Your task to perform on an android device: open app "YouTube Kids" (install if not already installed) and enter user name: "atmospheric@gmail.com" and password: "raze" Image 0: 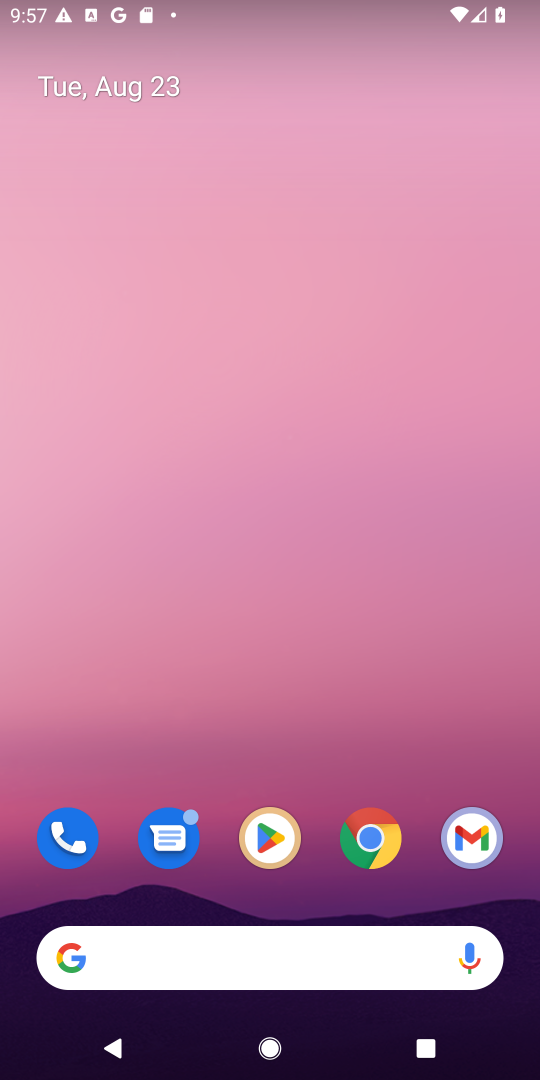
Step 0: click (289, 850)
Your task to perform on an android device: open app "YouTube Kids" (install if not already installed) and enter user name: "atmospheric@gmail.com" and password: "raze" Image 1: 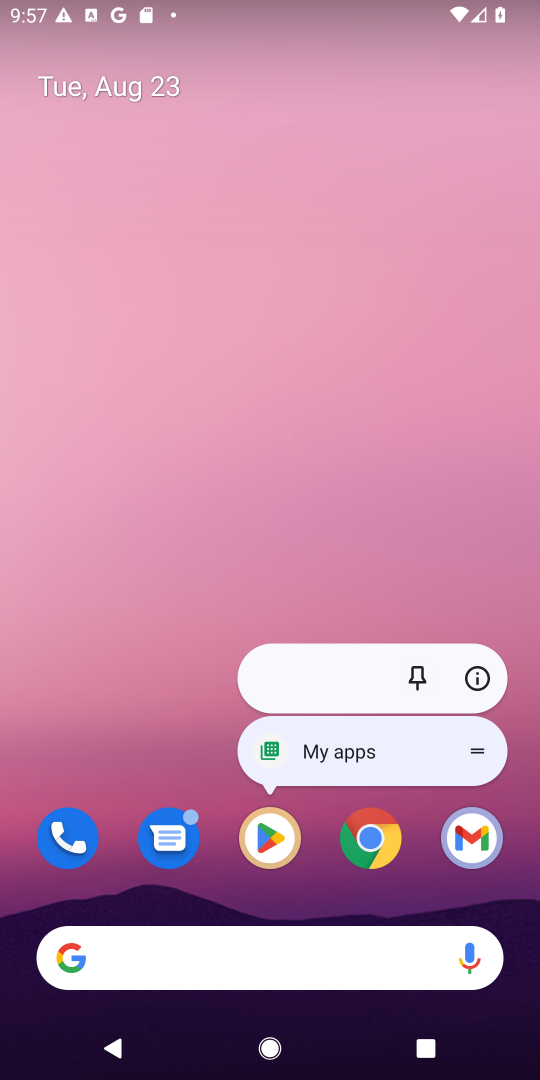
Step 1: click (289, 850)
Your task to perform on an android device: open app "YouTube Kids" (install if not already installed) and enter user name: "atmospheric@gmail.com" and password: "raze" Image 2: 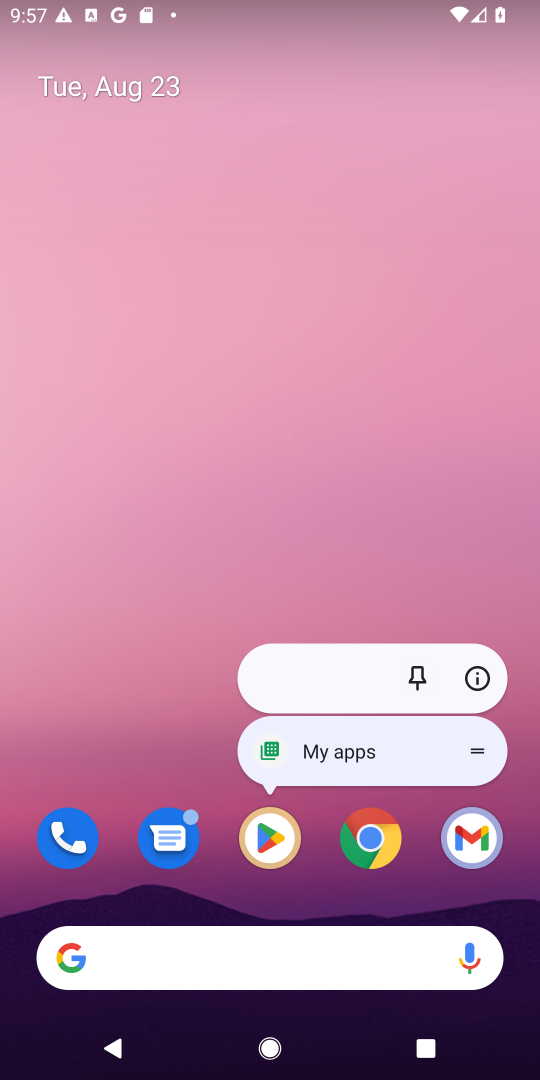
Step 2: click (267, 825)
Your task to perform on an android device: open app "YouTube Kids" (install if not already installed) and enter user name: "atmospheric@gmail.com" and password: "raze" Image 3: 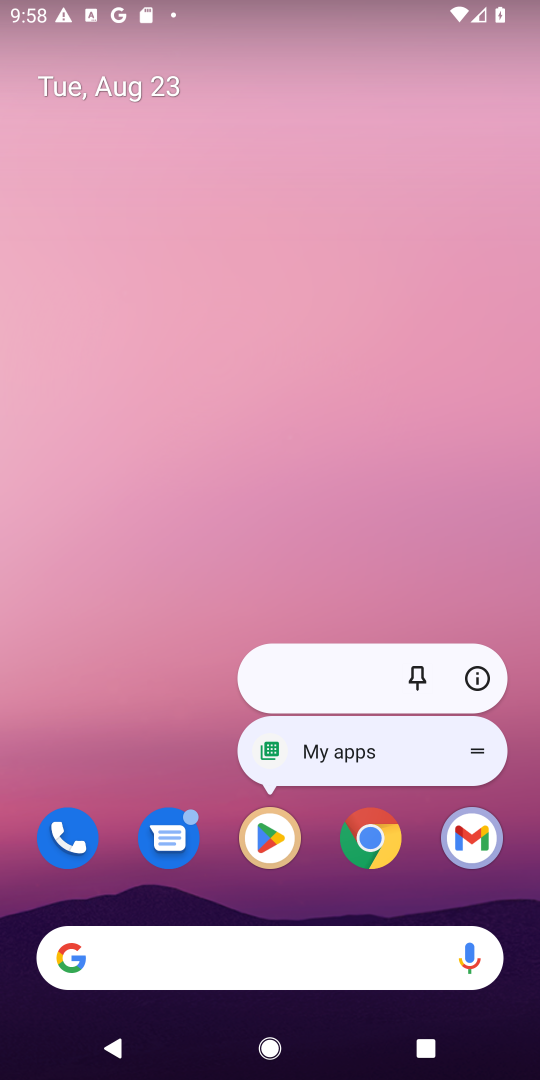
Step 3: click (277, 837)
Your task to perform on an android device: open app "YouTube Kids" (install if not already installed) and enter user name: "atmospheric@gmail.com" and password: "raze" Image 4: 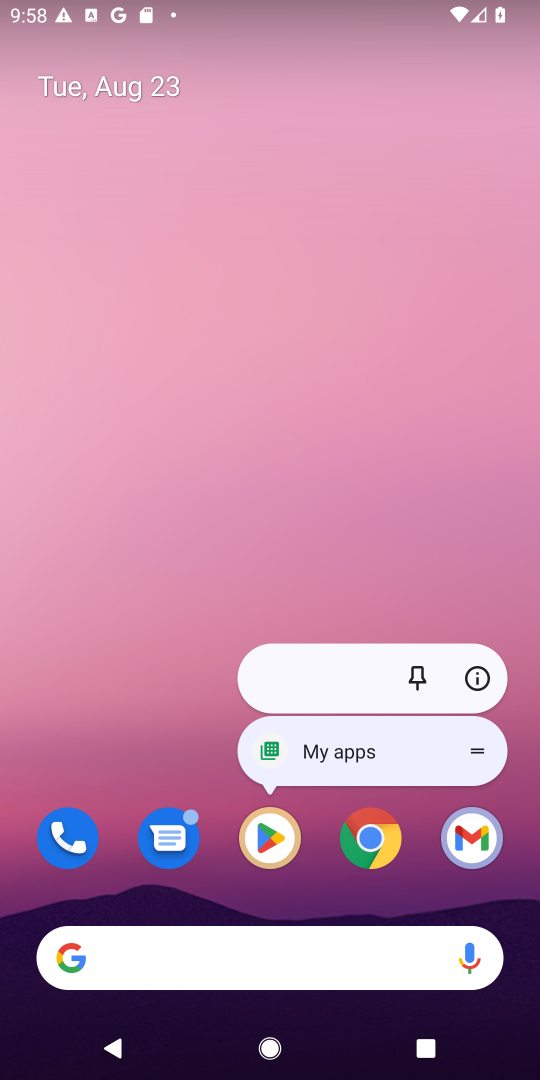
Step 4: click (277, 837)
Your task to perform on an android device: open app "YouTube Kids" (install if not already installed) and enter user name: "atmospheric@gmail.com" and password: "raze" Image 5: 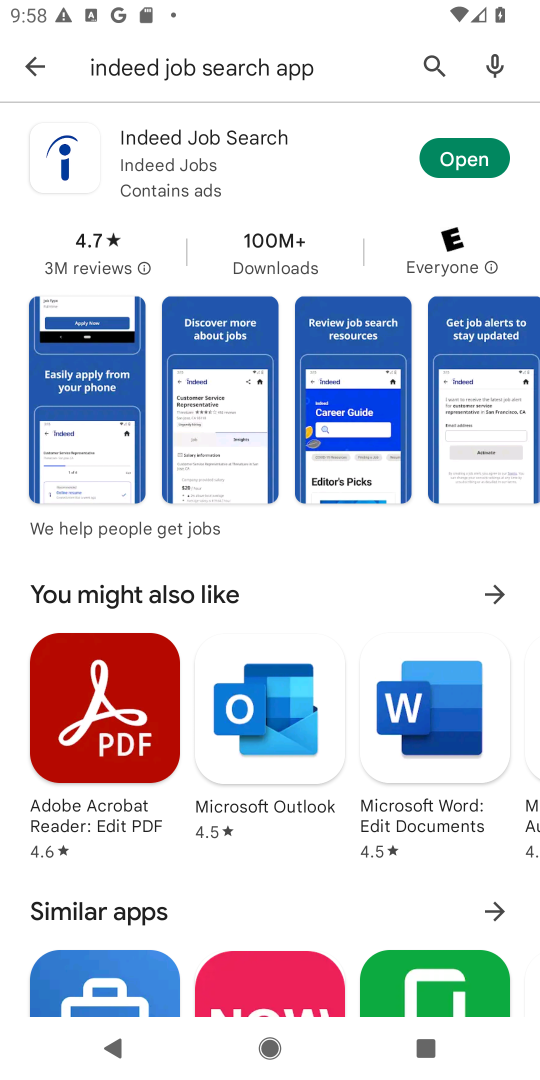
Step 5: click (478, 57)
Your task to perform on an android device: open app "YouTube Kids" (install if not already installed) and enter user name: "atmospheric@gmail.com" and password: "raze" Image 6: 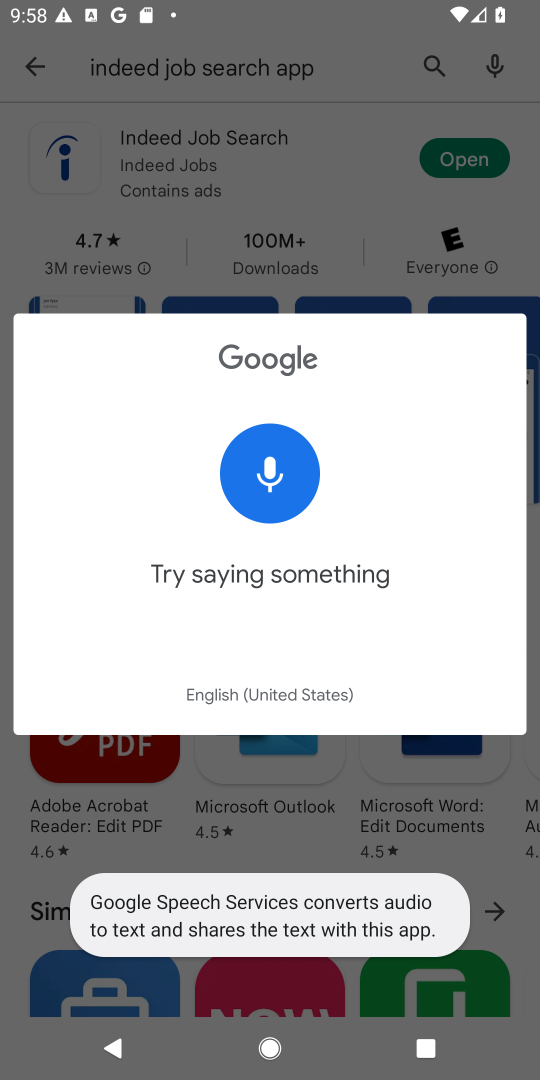
Step 6: click (443, 74)
Your task to perform on an android device: open app "YouTube Kids" (install if not already installed) and enter user name: "atmospheric@gmail.com" and password: "raze" Image 7: 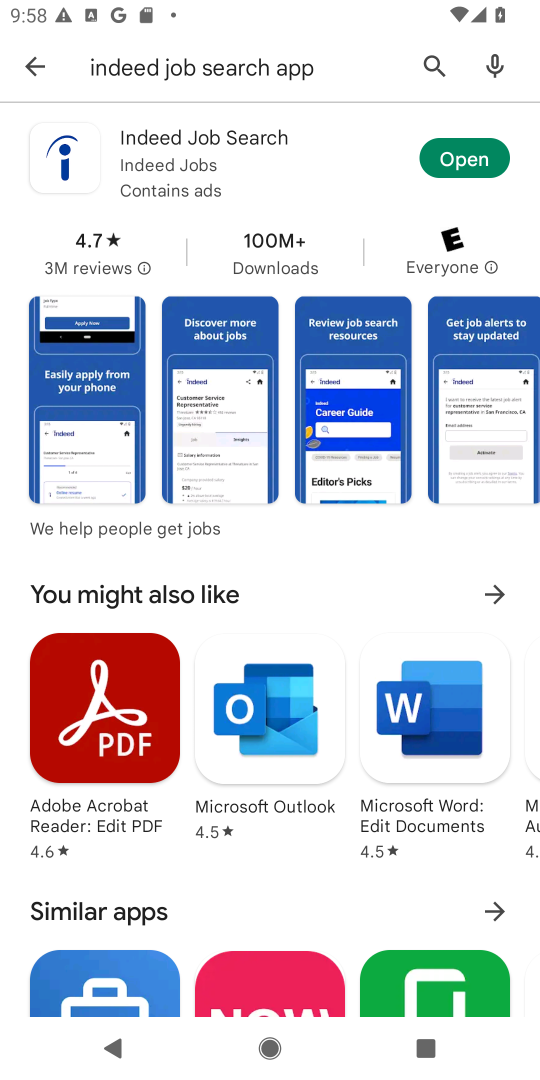
Step 7: click (443, 74)
Your task to perform on an android device: open app "YouTube Kids" (install if not already installed) and enter user name: "atmospheric@gmail.com" and password: "raze" Image 8: 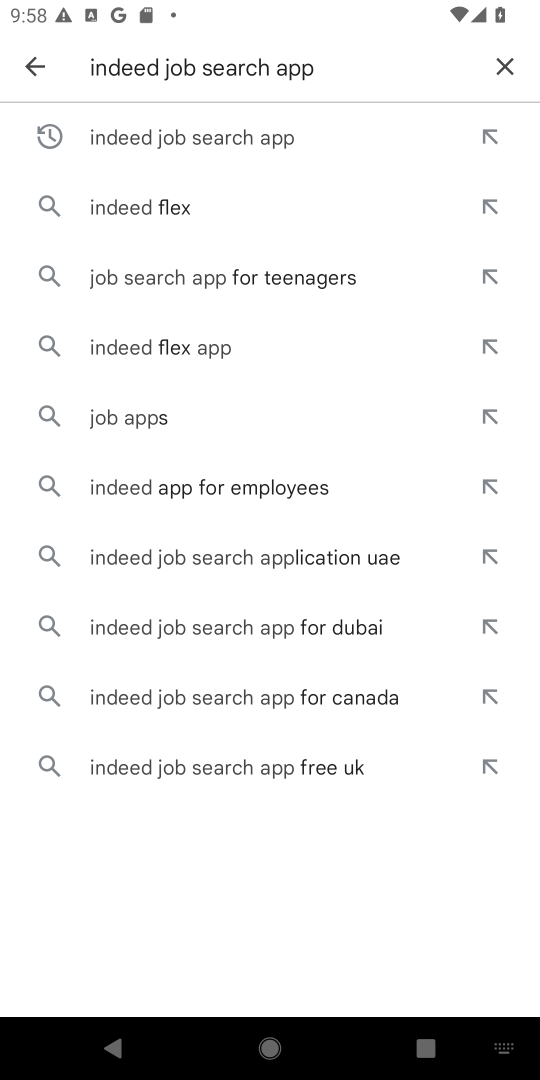
Step 8: click (506, 65)
Your task to perform on an android device: open app "YouTube Kids" (install if not already installed) and enter user name: "atmospheric@gmail.com" and password: "raze" Image 9: 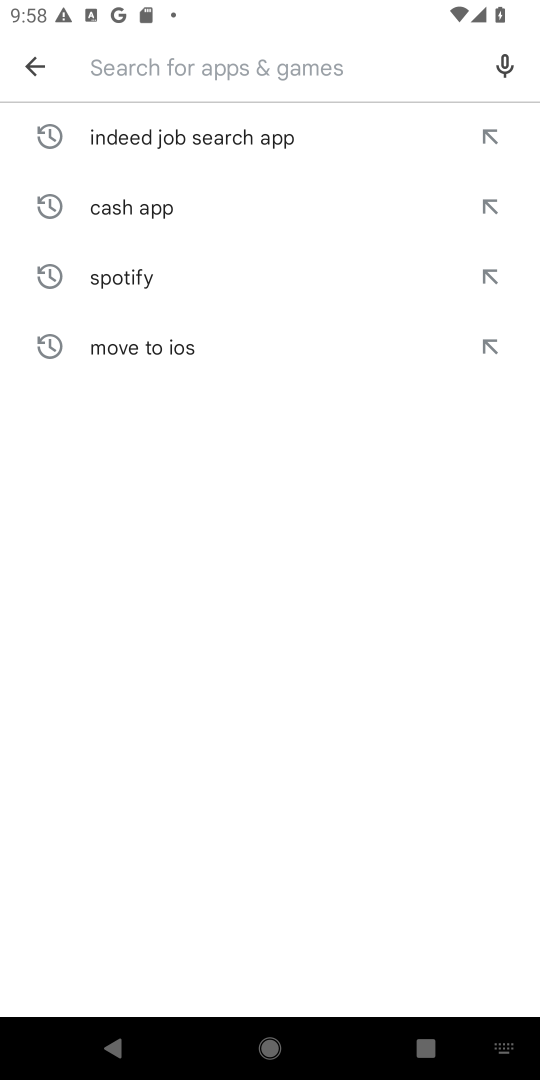
Step 9: type "YouTube Kids"
Your task to perform on an android device: open app "YouTube Kids" (install if not already installed) and enter user name: "atmospheric@gmail.com" and password: "raze" Image 10: 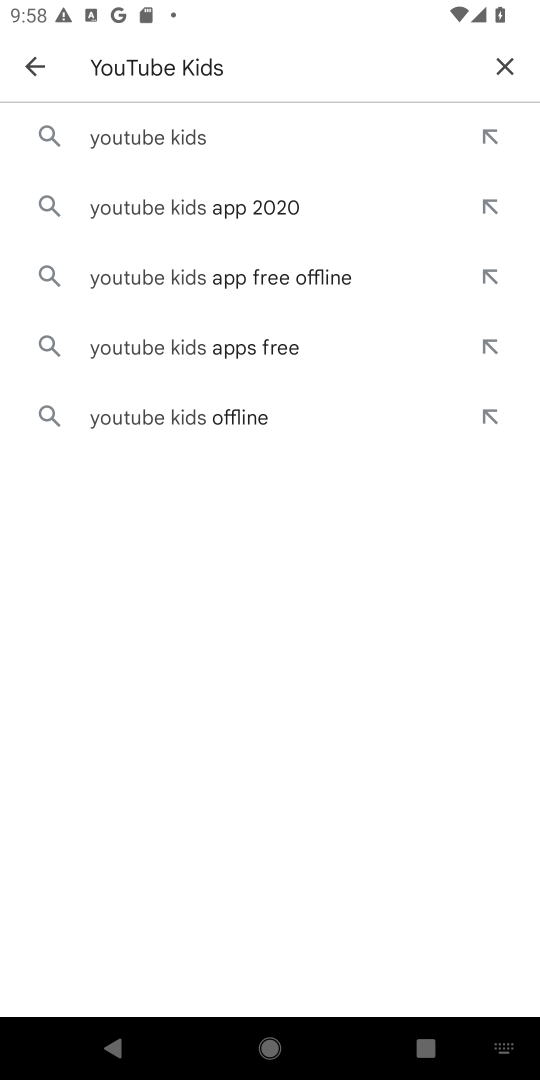
Step 10: click (214, 118)
Your task to perform on an android device: open app "YouTube Kids" (install if not already installed) and enter user name: "atmospheric@gmail.com" and password: "raze" Image 11: 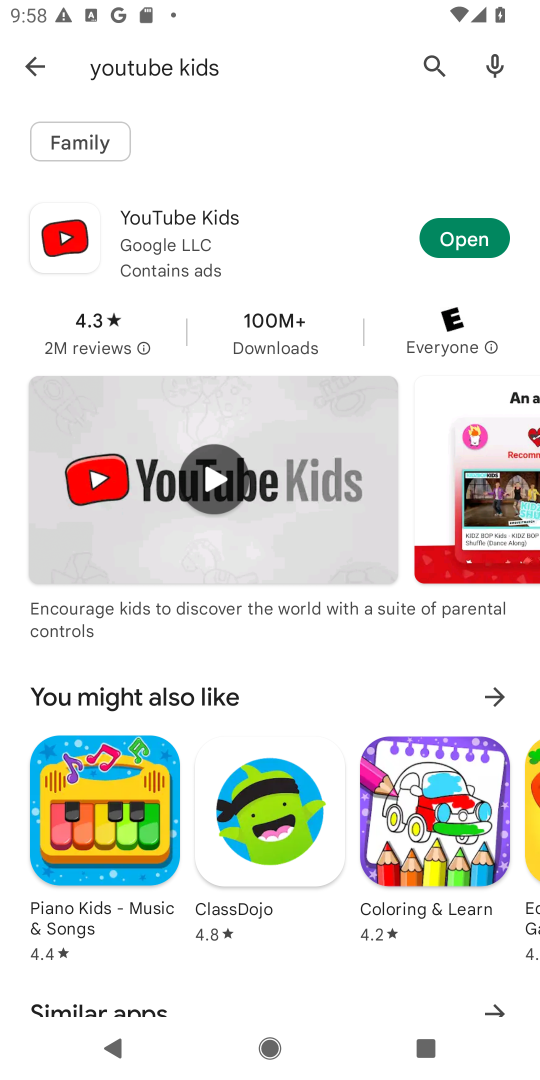
Step 11: click (478, 229)
Your task to perform on an android device: open app "YouTube Kids" (install if not already installed) and enter user name: "atmospheric@gmail.com" and password: "raze" Image 12: 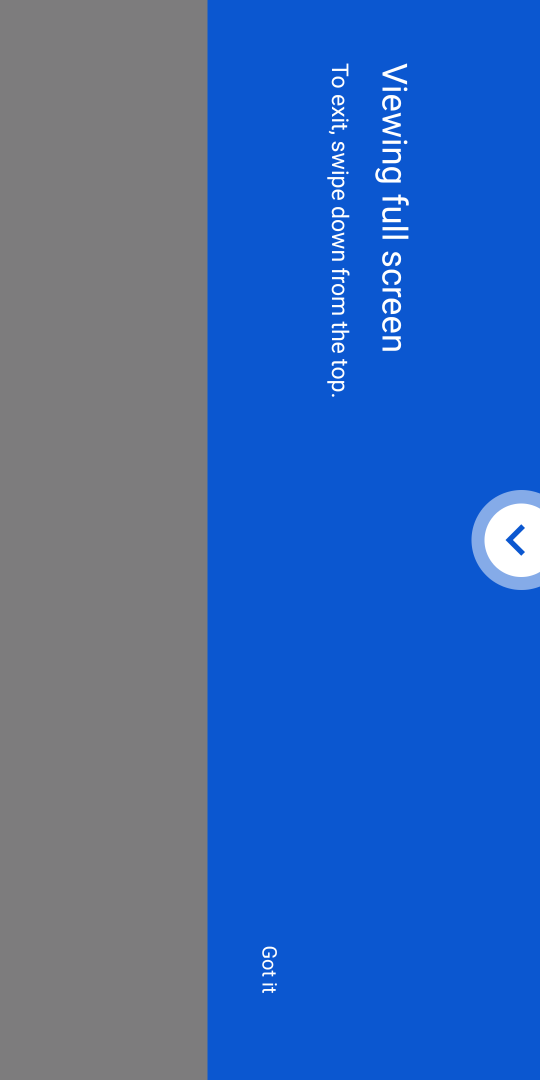
Step 12: task complete